Your task to perform on an android device: Go to ESPN.com Image 0: 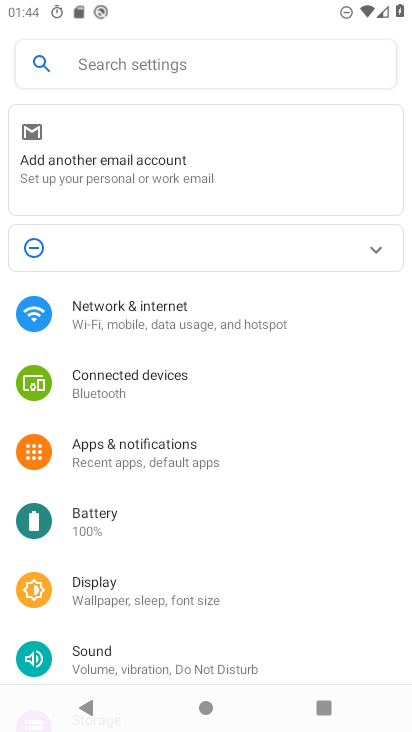
Step 0: press home button
Your task to perform on an android device: Go to ESPN.com Image 1: 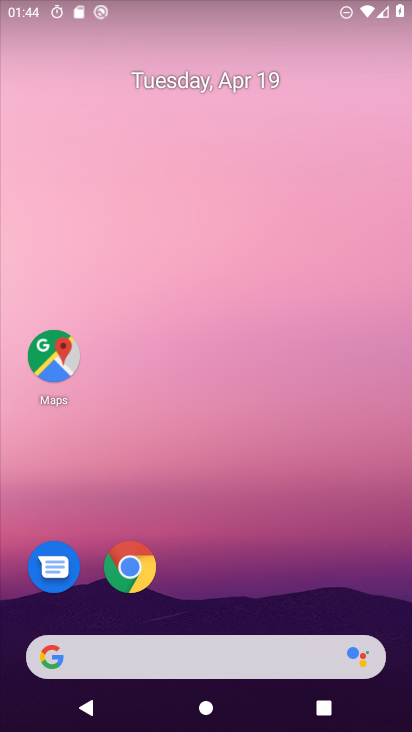
Step 1: drag from (305, 534) to (284, 194)
Your task to perform on an android device: Go to ESPN.com Image 2: 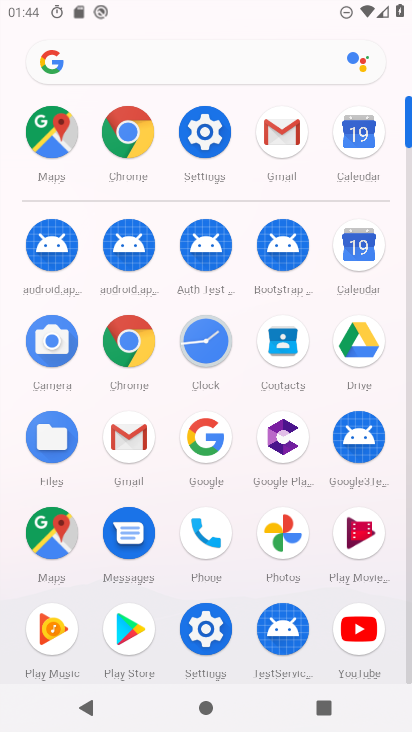
Step 2: click (125, 359)
Your task to perform on an android device: Go to ESPN.com Image 3: 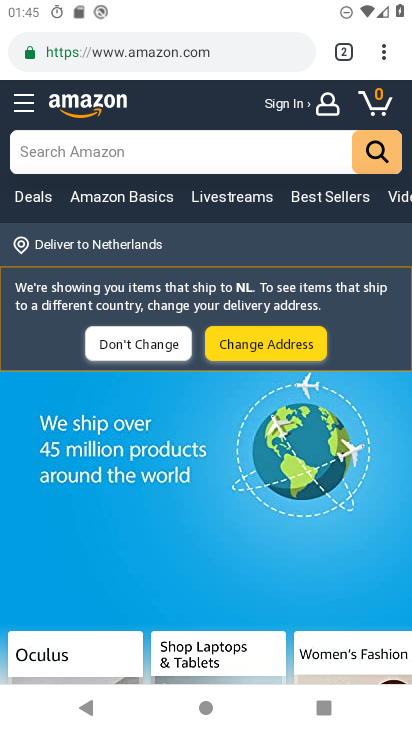
Step 3: click (127, 52)
Your task to perform on an android device: Go to ESPN.com Image 4: 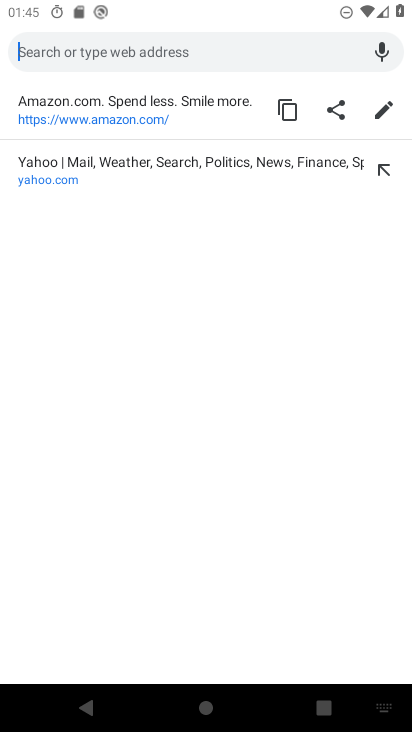
Step 4: type "espn.com"
Your task to perform on an android device: Go to ESPN.com Image 5: 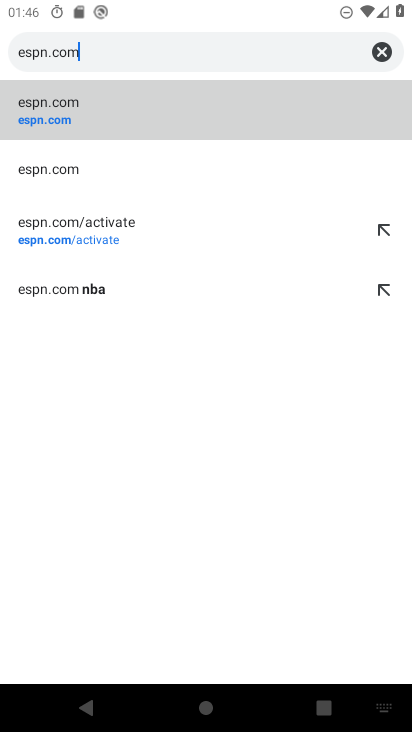
Step 5: click (205, 109)
Your task to perform on an android device: Go to ESPN.com Image 6: 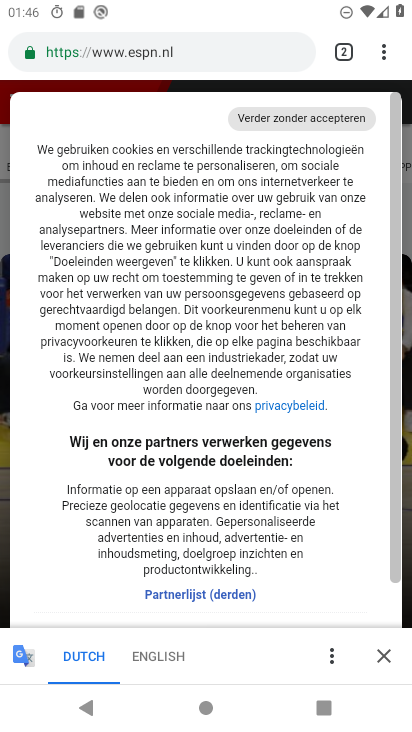
Step 6: task complete